Your task to perform on an android device: Open ESPN.com Image 0: 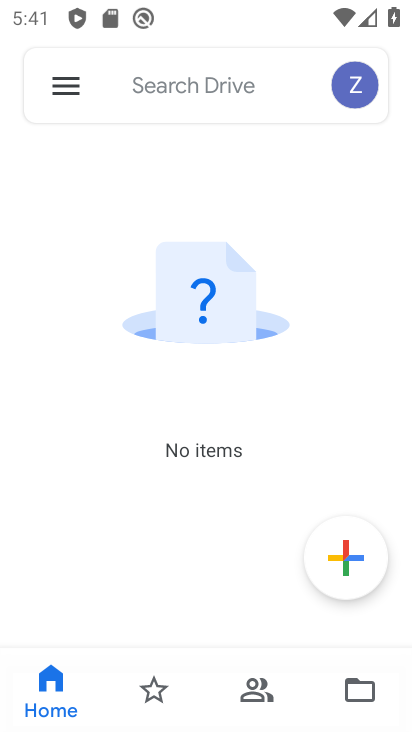
Step 0: press home button
Your task to perform on an android device: Open ESPN.com Image 1: 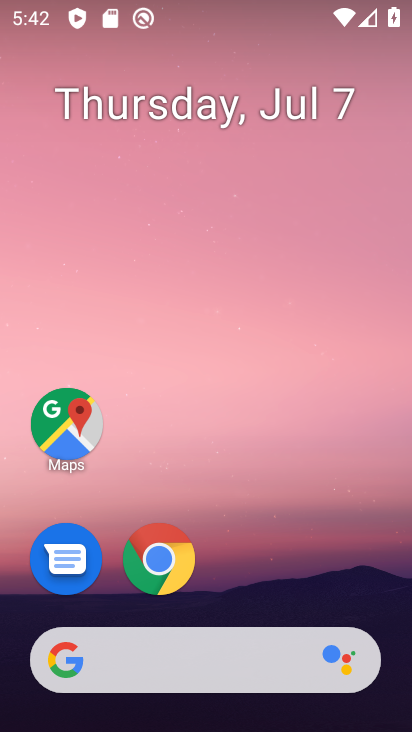
Step 1: click (185, 555)
Your task to perform on an android device: Open ESPN.com Image 2: 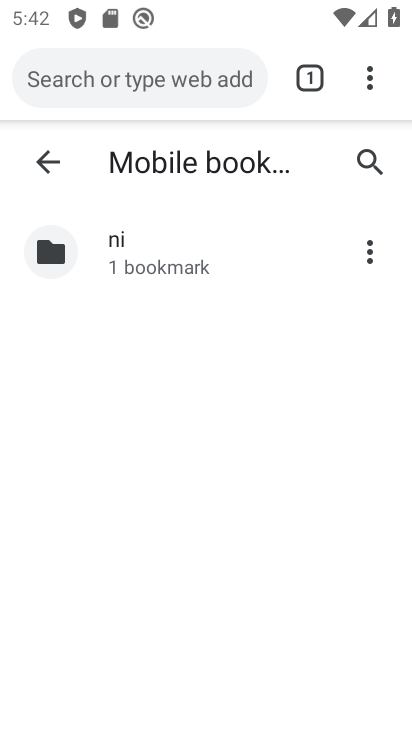
Step 2: click (173, 561)
Your task to perform on an android device: Open ESPN.com Image 3: 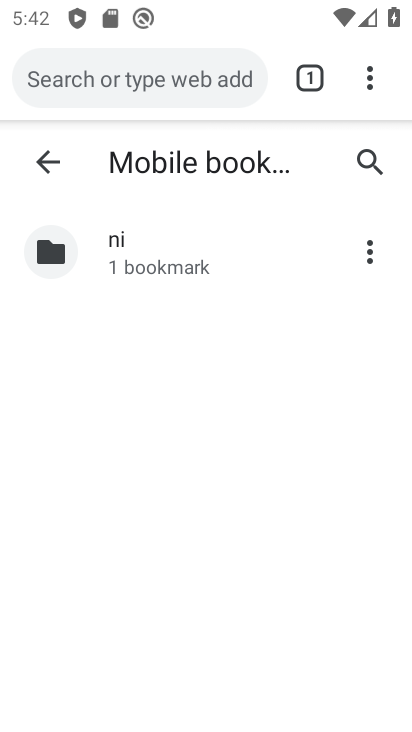
Step 3: click (174, 85)
Your task to perform on an android device: Open ESPN.com Image 4: 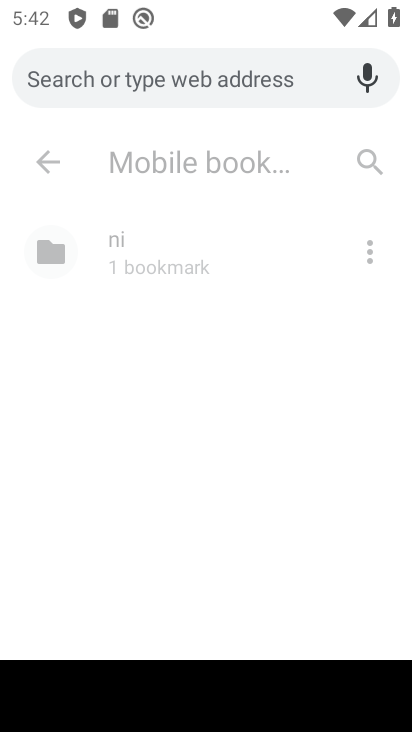
Step 4: type "espn.com"
Your task to perform on an android device: Open ESPN.com Image 5: 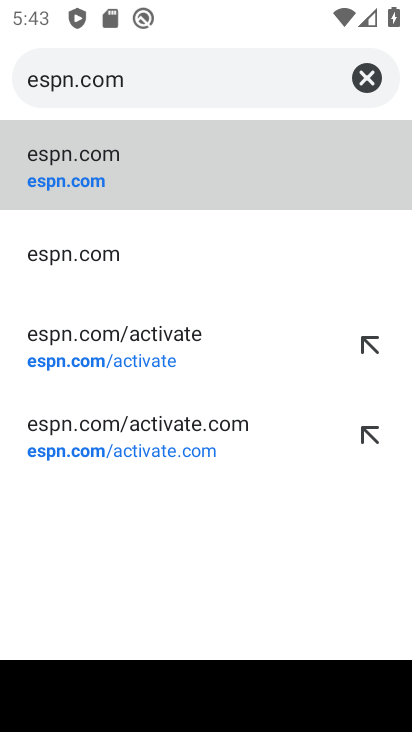
Step 5: click (256, 179)
Your task to perform on an android device: Open ESPN.com Image 6: 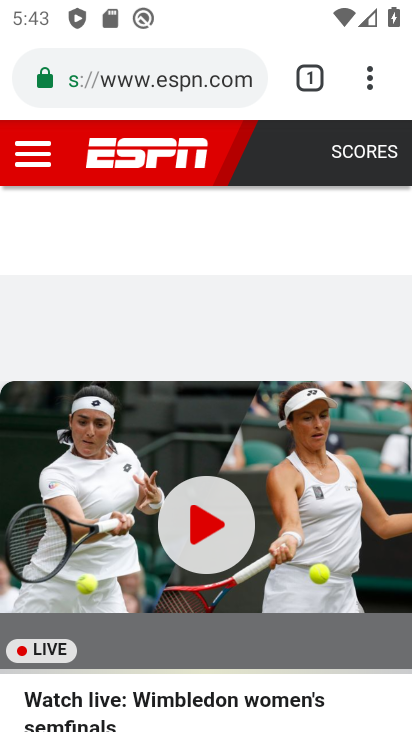
Step 6: task complete